Your task to perform on an android device: turn on airplane mode Image 0: 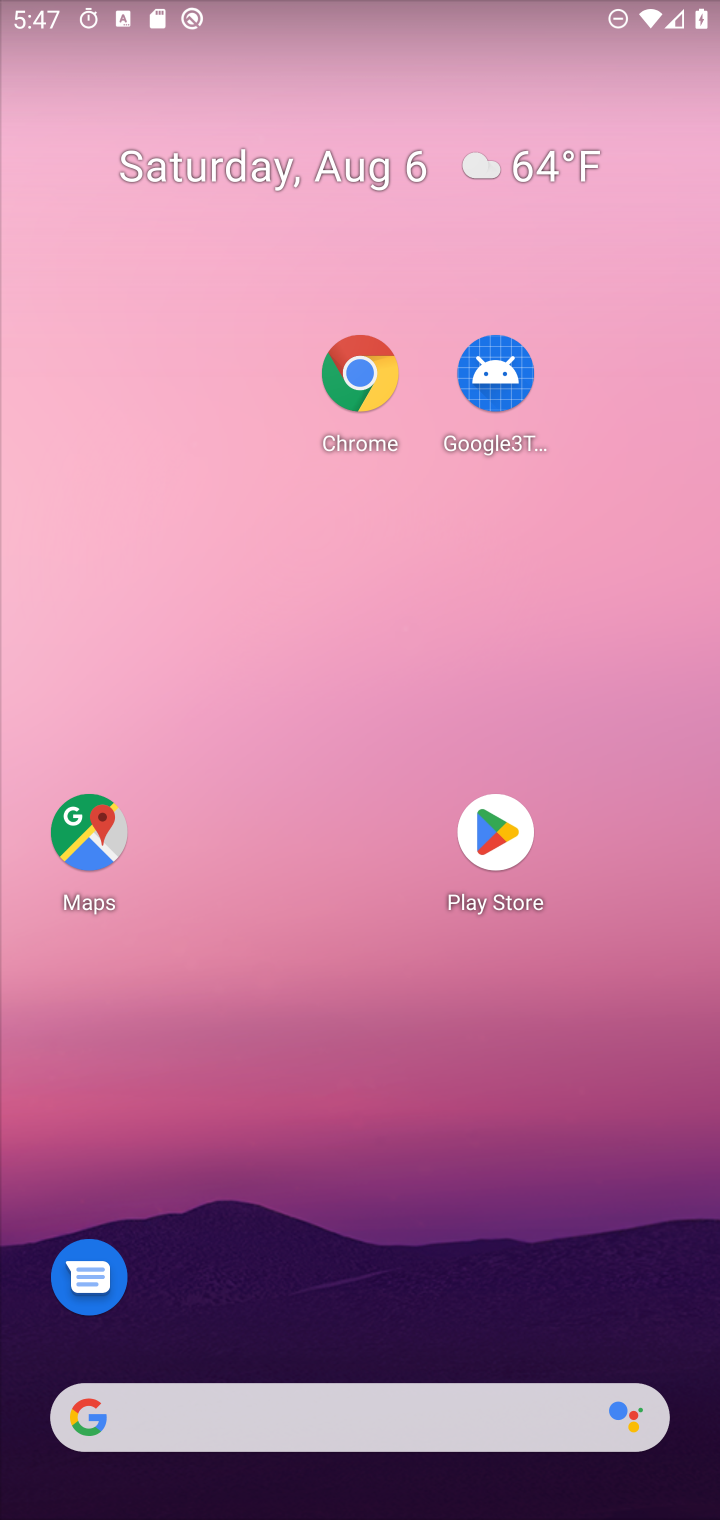
Step 0: drag from (338, 1402) to (521, 43)
Your task to perform on an android device: turn on airplane mode Image 1: 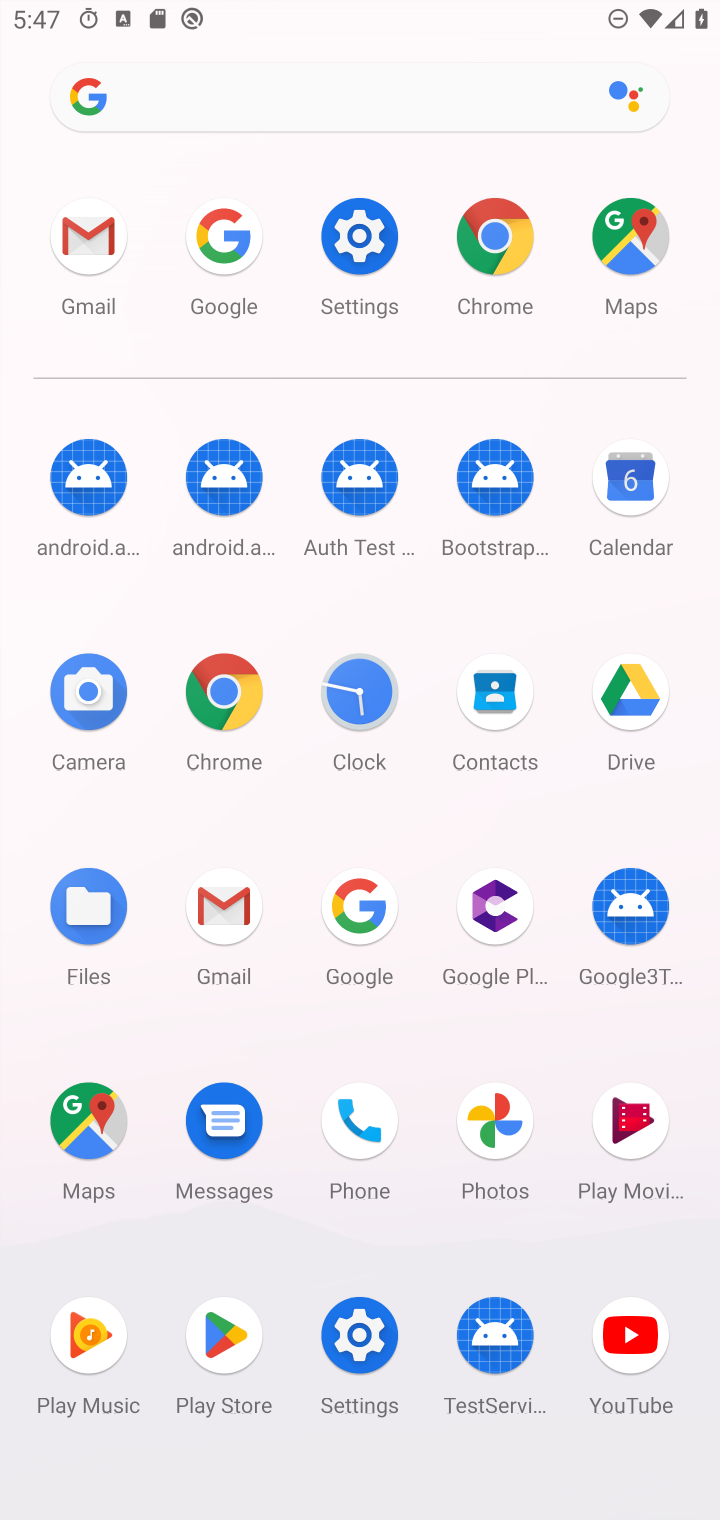
Step 1: click (369, 242)
Your task to perform on an android device: turn on airplane mode Image 2: 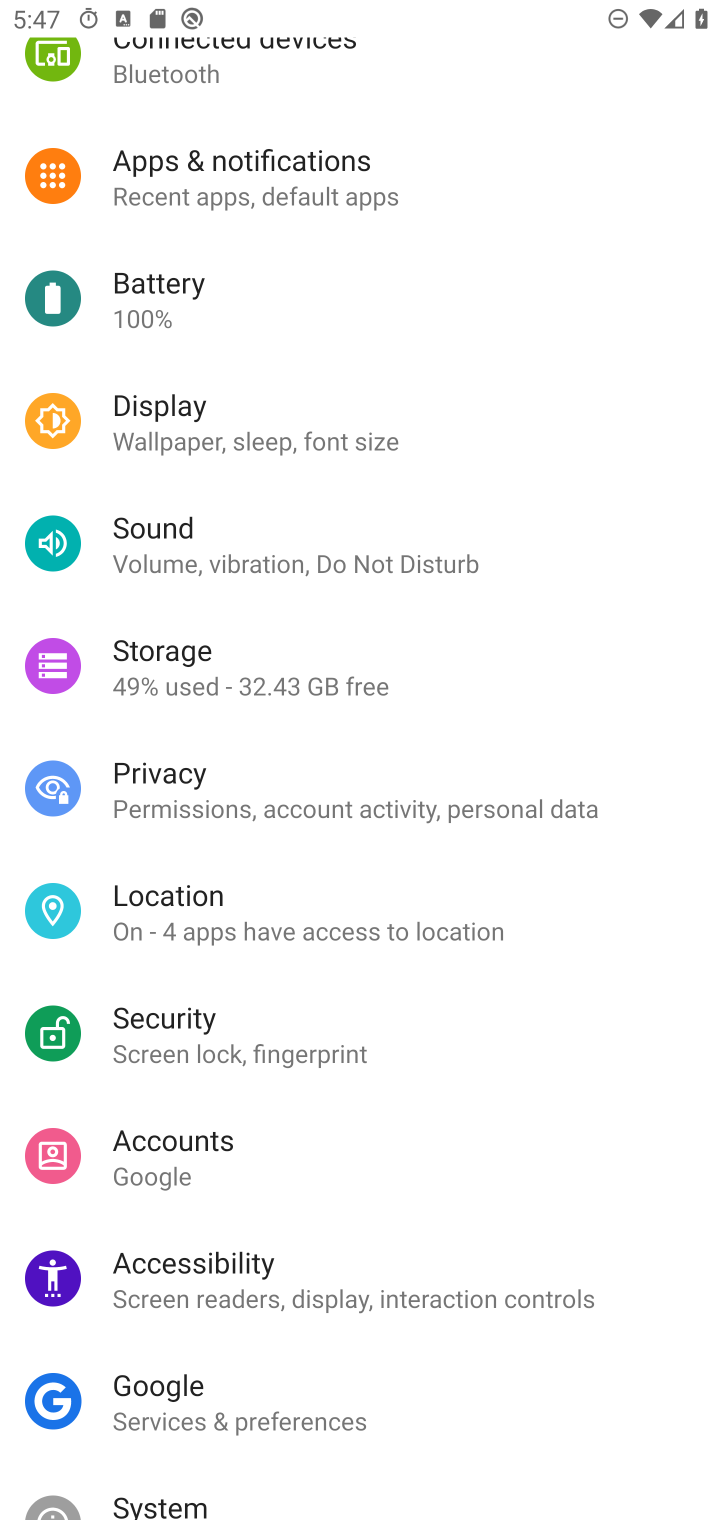
Step 2: drag from (638, 325) to (570, 1043)
Your task to perform on an android device: turn on airplane mode Image 3: 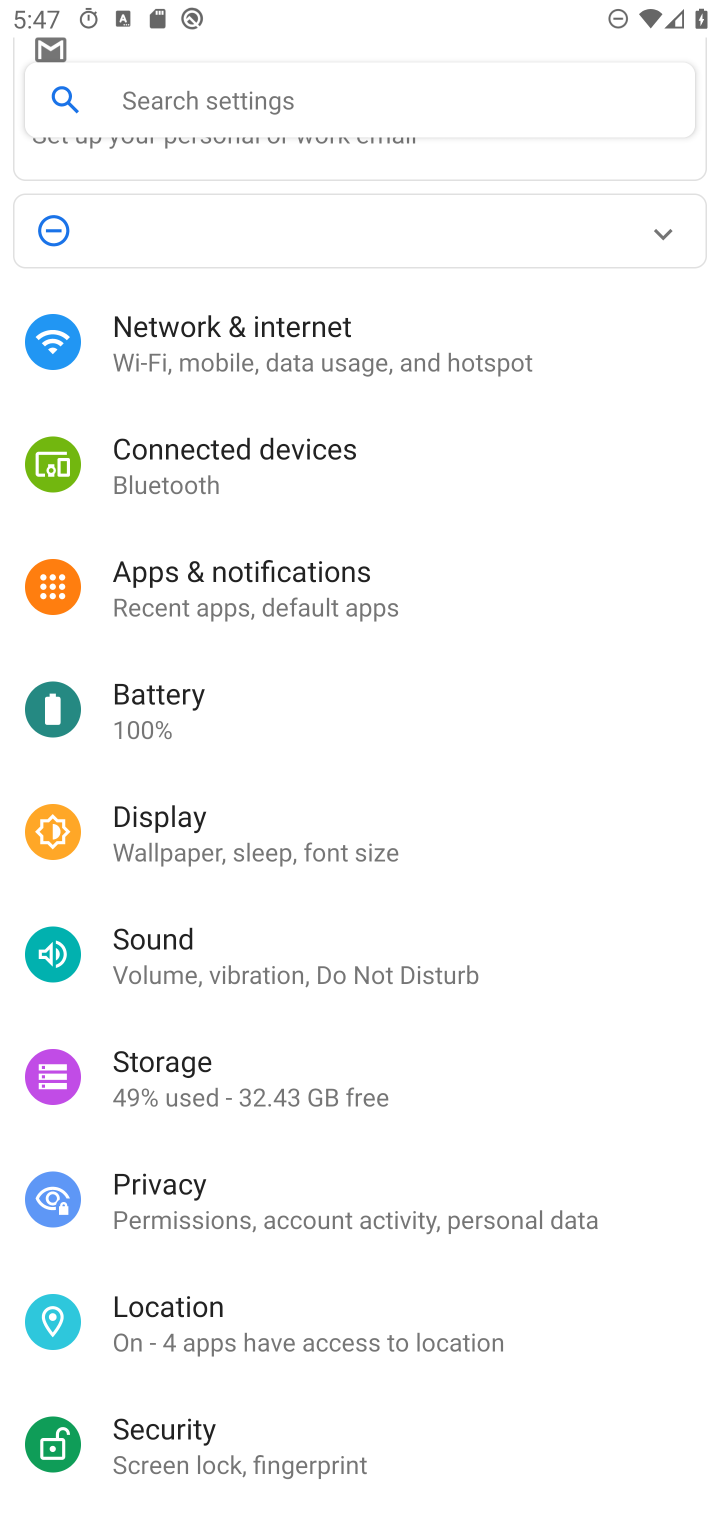
Step 3: click (309, 337)
Your task to perform on an android device: turn on airplane mode Image 4: 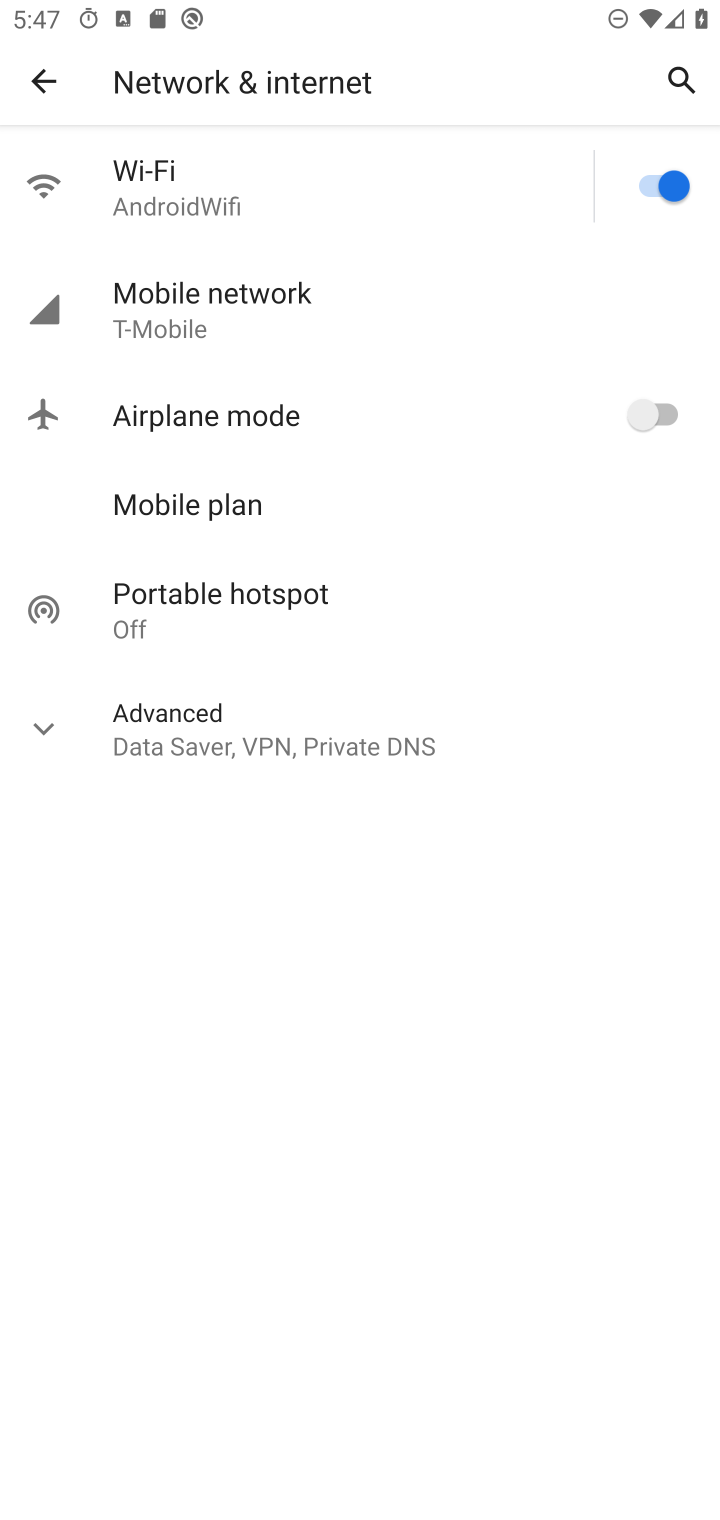
Step 4: click (682, 411)
Your task to perform on an android device: turn on airplane mode Image 5: 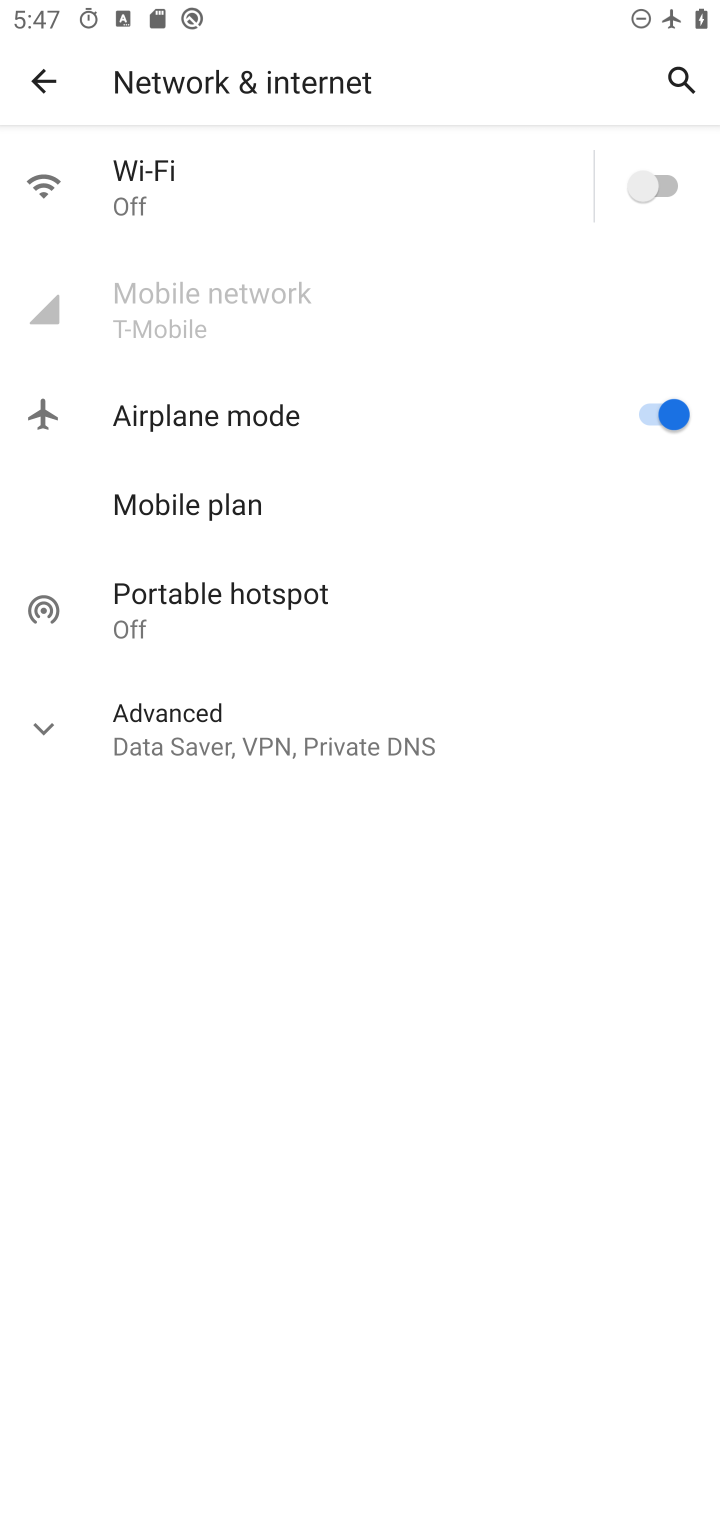
Step 5: task complete